Your task to perform on an android device: show emergency info Image 0: 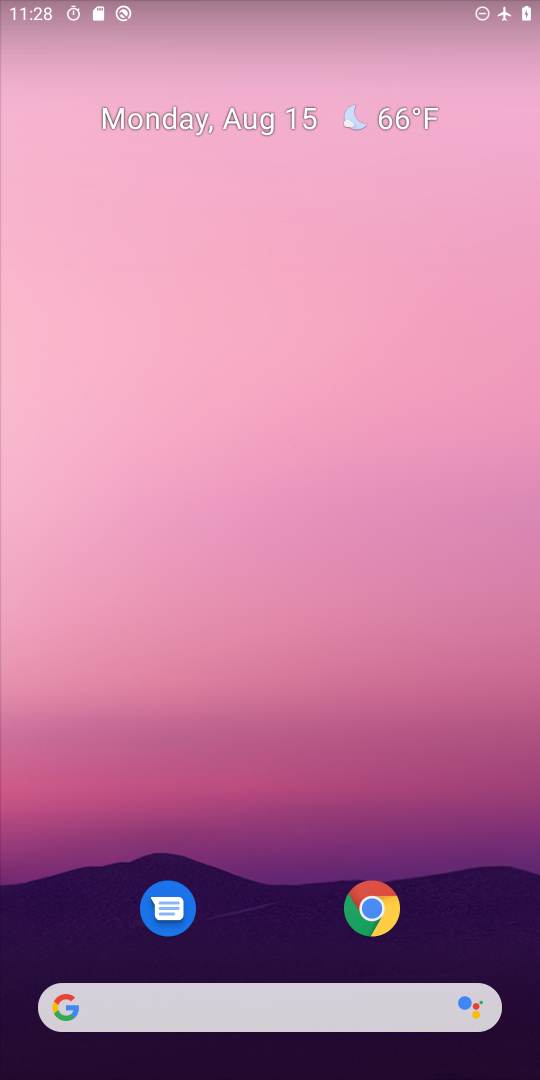
Step 0: drag from (302, 164) to (400, 31)
Your task to perform on an android device: show emergency info Image 1: 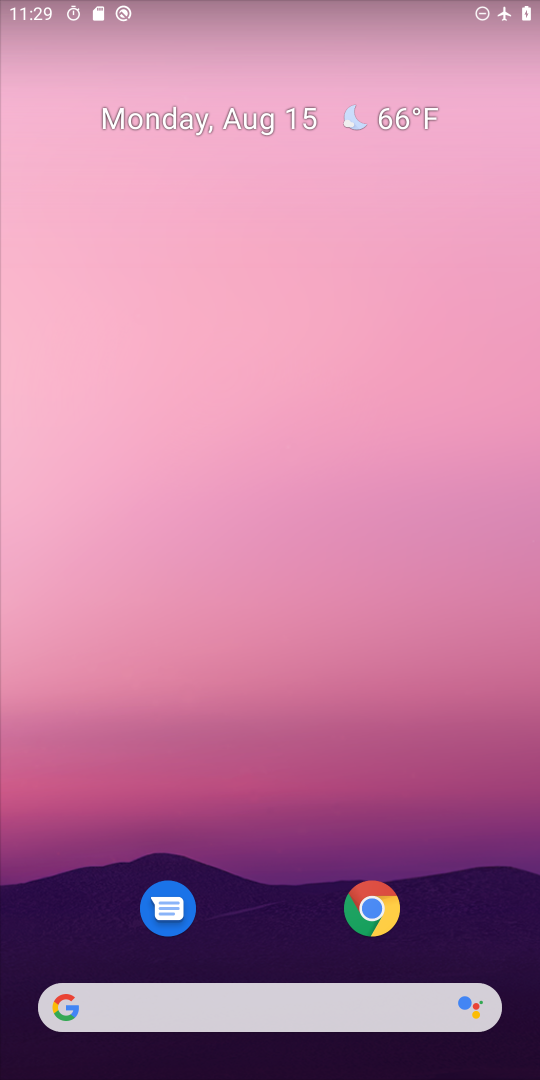
Step 1: drag from (248, 936) to (251, 128)
Your task to perform on an android device: show emergency info Image 2: 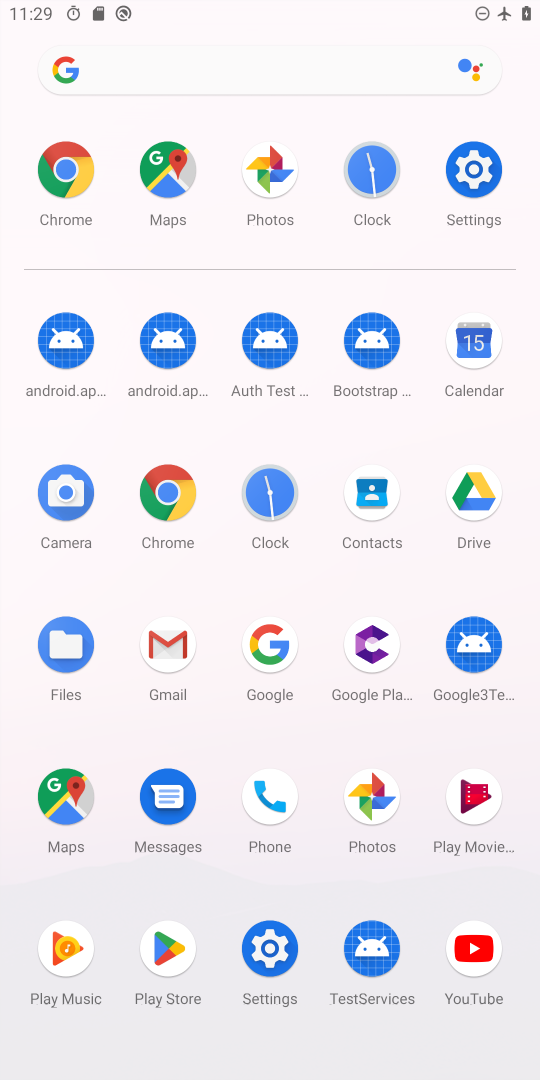
Step 2: click (455, 146)
Your task to perform on an android device: show emergency info Image 3: 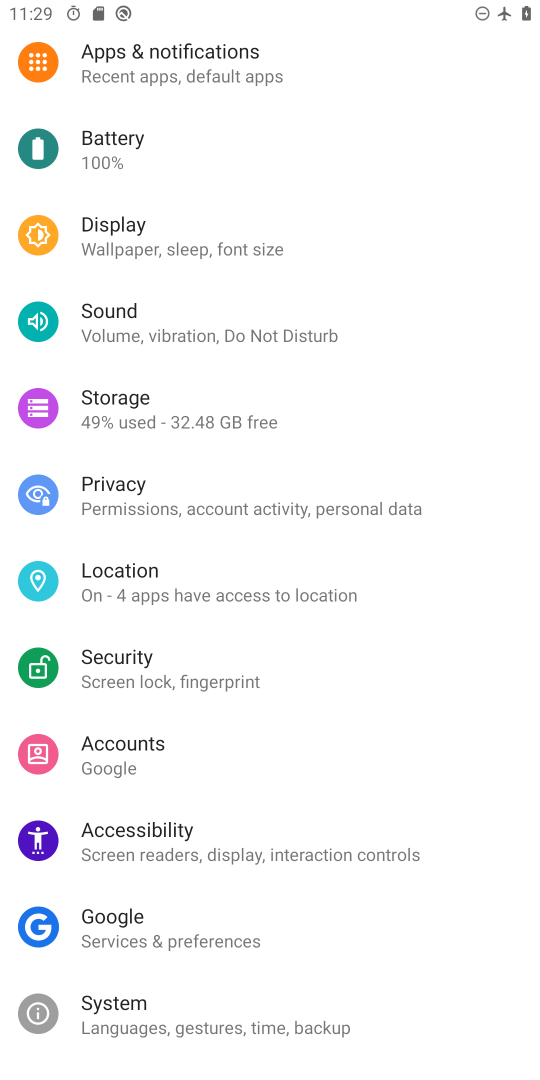
Step 3: drag from (223, 982) to (189, 208)
Your task to perform on an android device: show emergency info Image 4: 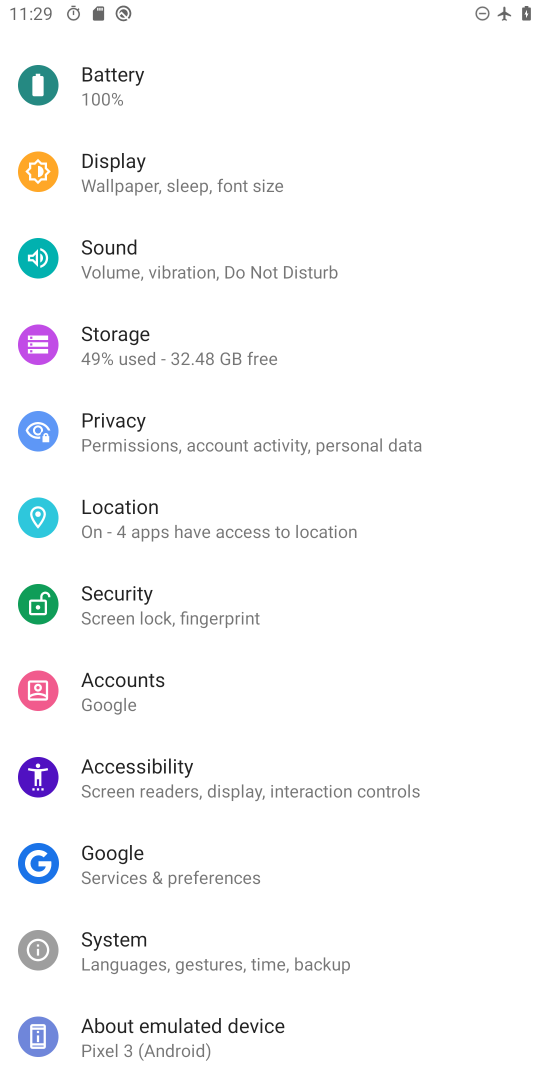
Step 4: click (224, 1025)
Your task to perform on an android device: show emergency info Image 5: 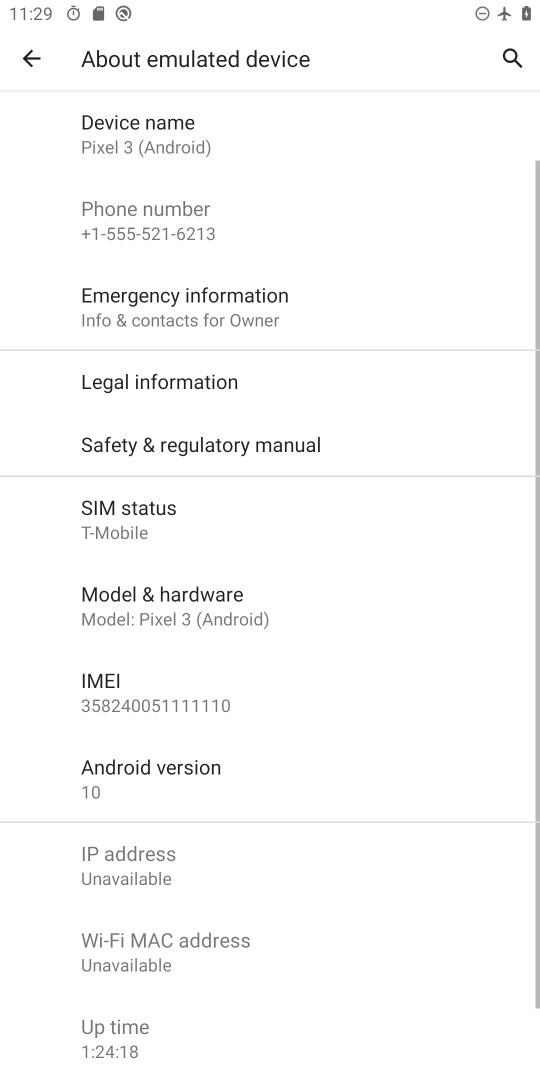
Step 5: click (315, 309)
Your task to perform on an android device: show emergency info Image 6: 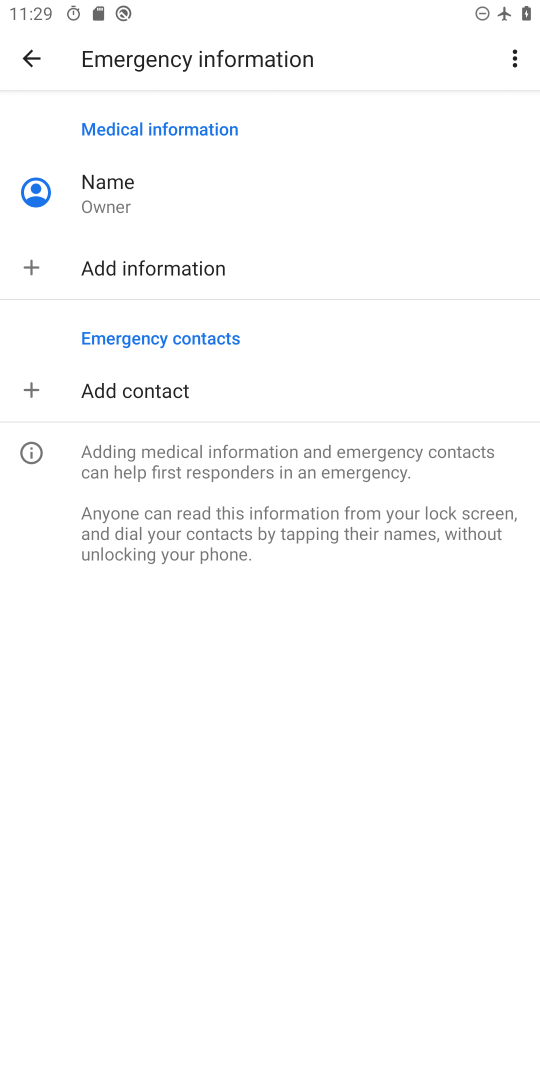
Step 6: task complete